Your task to perform on an android device: Do I have any events tomorrow? Image 0: 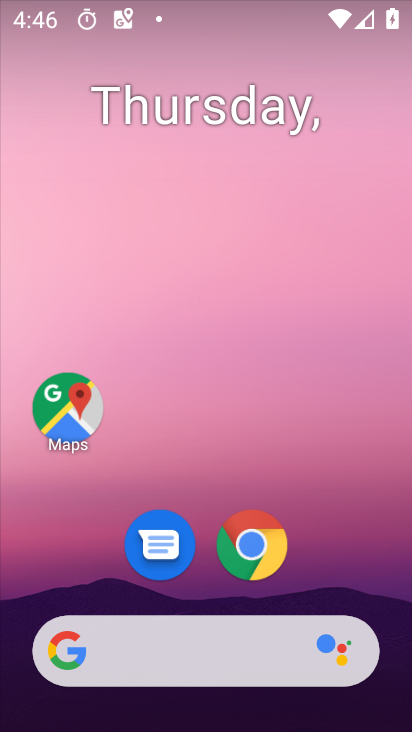
Step 0: drag from (220, 726) to (206, 44)
Your task to perform on an android device: Do I have any events tomorrow? Image 1: 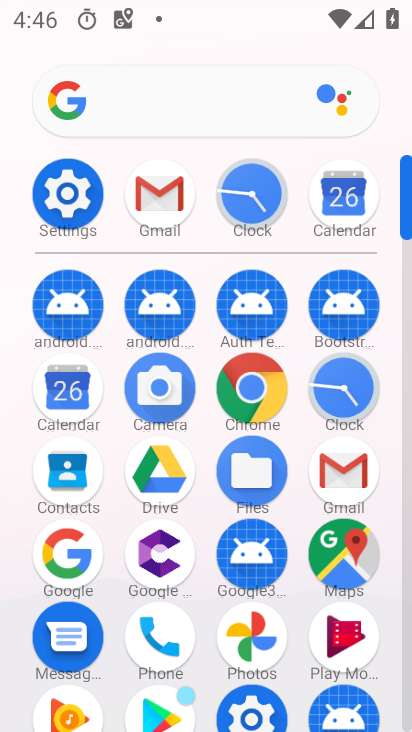
Step 1: click (65, 404)
Your task to perform on an android device: Do I have any events tomorrow? Image 2: 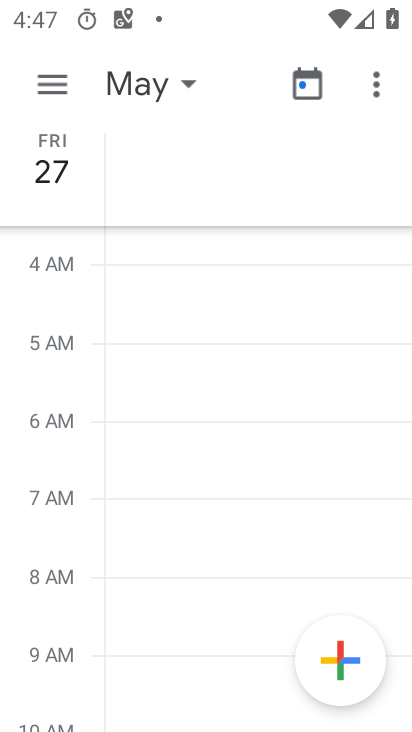
Step 2: click (51, 78)
Your task to perform on an android device: Do I have any events tomorrow? Image 3: 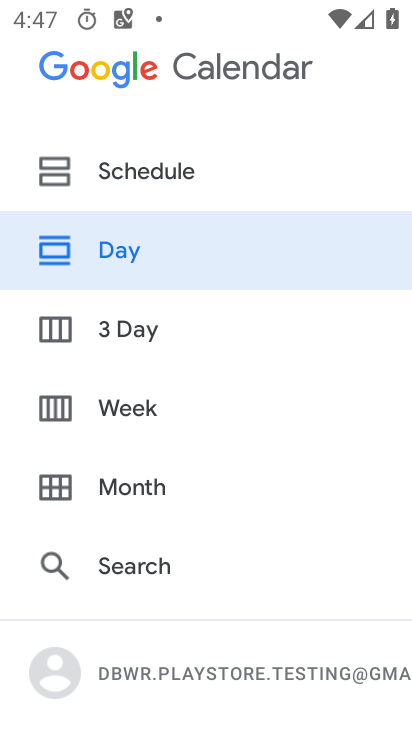
Step 3: drag from (142, 658) to (142, 137)
Your task to perform on an android device: Do I have any events tomorrow? Image 4: 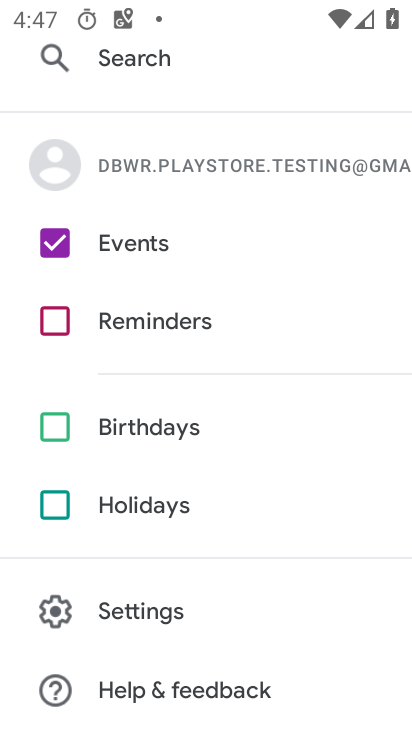
Step 4: drag from (231, 127) to (241, 590)
Your task to perform on an android device: Do I have any events tomorrow? Image 5: 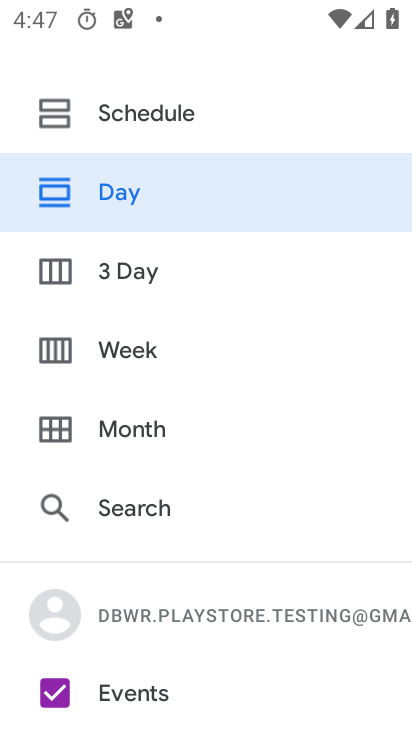
Step 5: click (175, 107)
Your task to perform on an android device: Do I have any events tomorrow? Image 6: 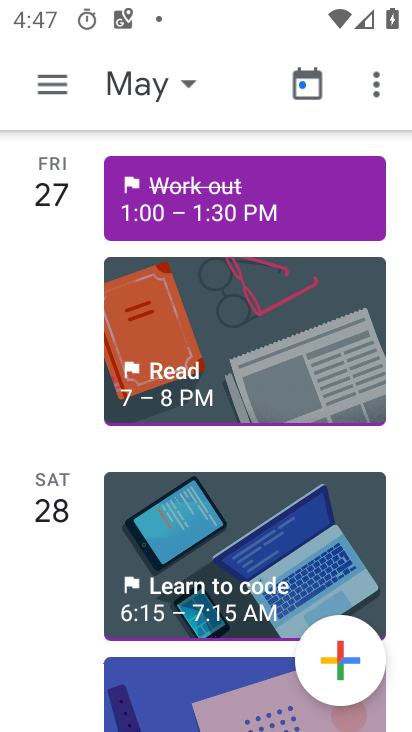
Step 6: click (158, 82)
Your task to perform on an android device: Do I have any events tomorrow? Image 7: 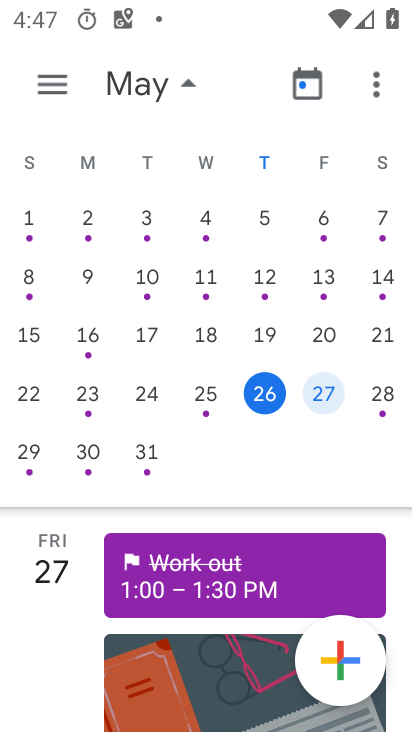
Step 7: click (325, 389)
Your task to perform on an android device: Do I have any events tomorrow? Image 8: 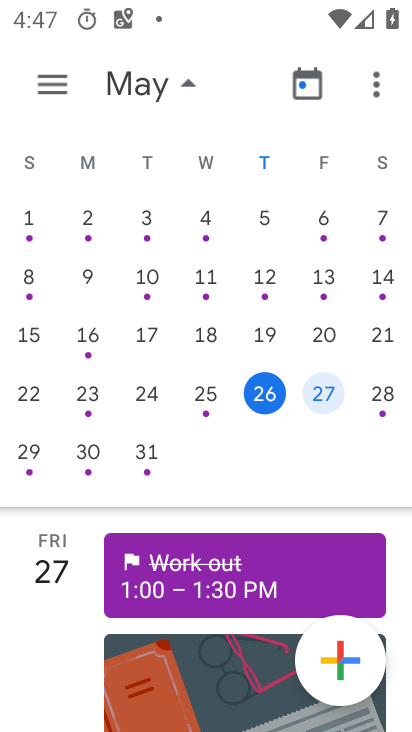
Step 8: click (322, 391)
Your task to perform on an android device: Do I have any events tomorrow? Image 9: 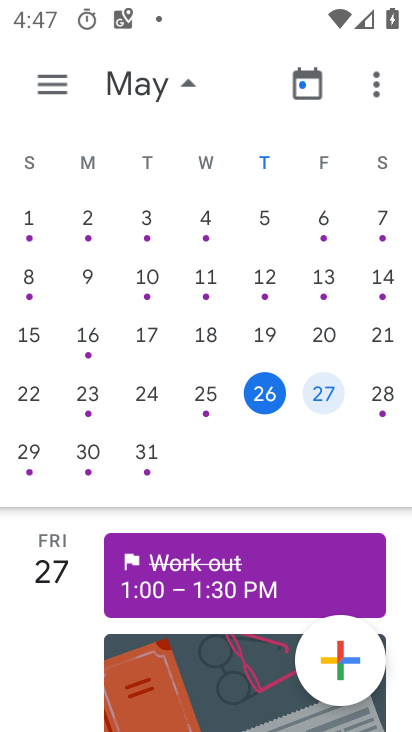
Step 9: click (183, 83)
Your task to perform on an android device: Do I have any events tomorrow? Image 10: 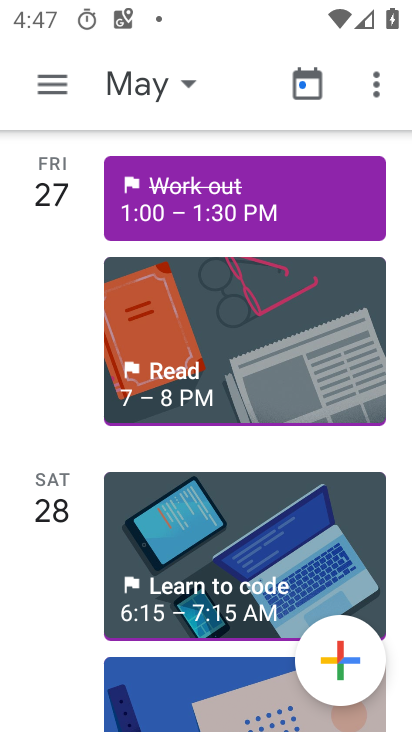
Step 10: task complete